Your task to perform on an android device: check the backup settings in the google photos Image 0: 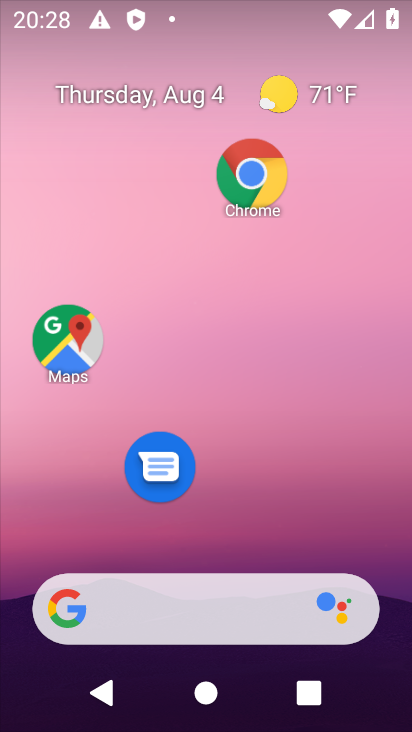
Step 0: drag from (327, 498) to (308, 32)
Your task to perform on an android device: check the backup settings in the google photos Image 1: 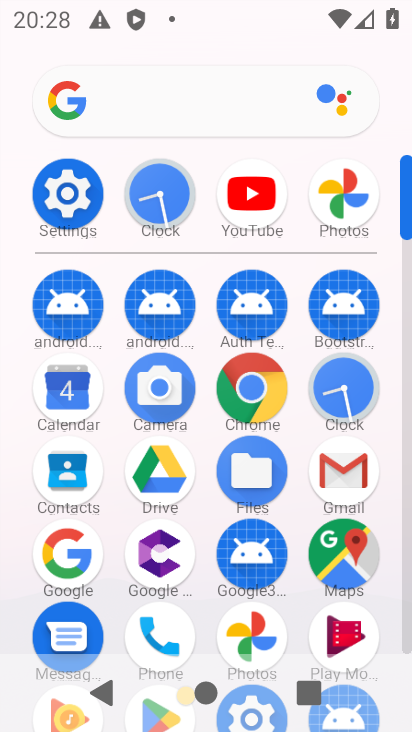
Step 1: drag from (204, 461) to (223, 128)
Your task to perform on an android device: check the backup settings in the google photos Image 2: 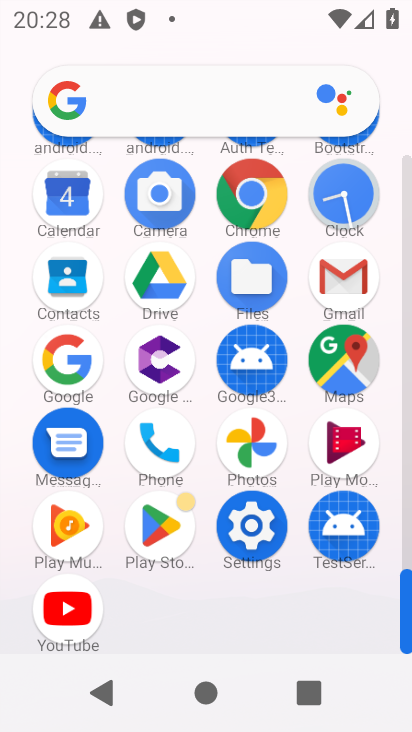
Step 2: click (250, 439)
Your task to perform on an android device: check the backup settings in the google photos Image 3: 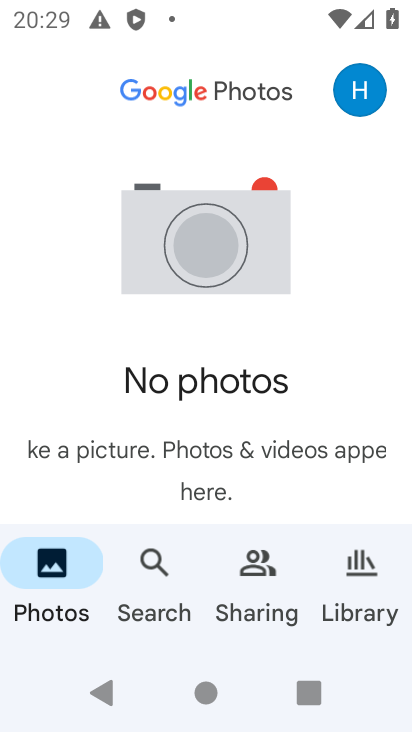
Step 3: click (353, 87)
Your task to perform on an android device: check the backup settings in the google photos Image 4: 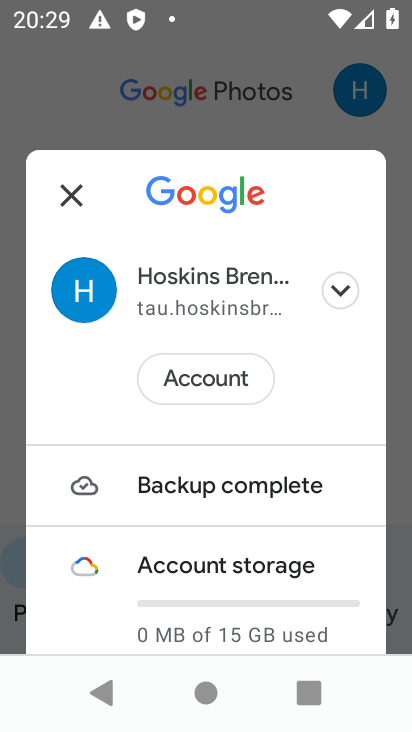
Step 4: click (274, 488)
Your task to perform on an android device: check the backup settings in the google photos Image 5: 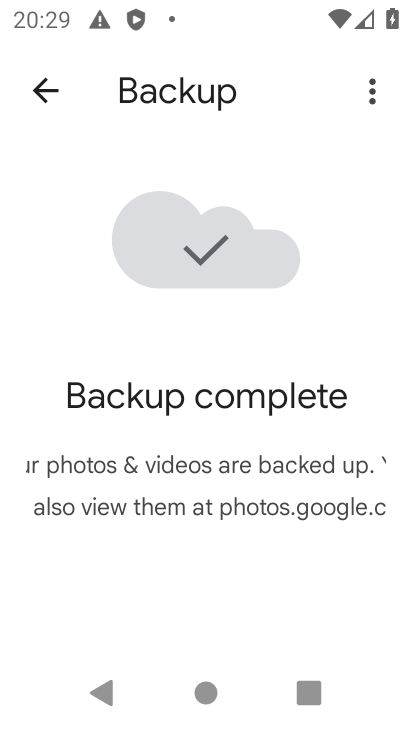
Step 5: task complete